Your task to perform on an android device: search for starred emails in the gmail app Image 0: 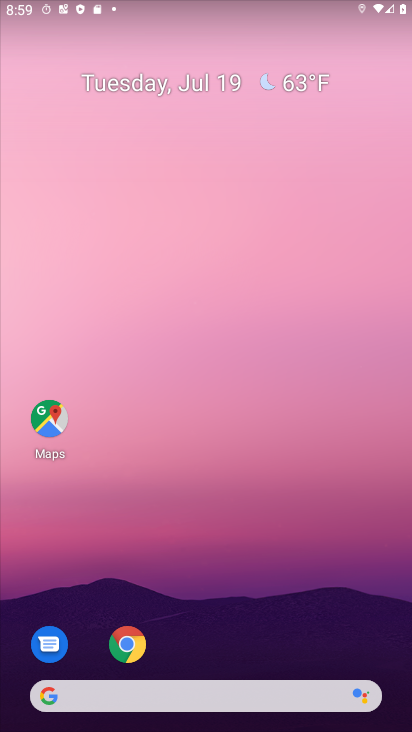
Step 0: drag from (245, 688) to (182, 198)
Your task to perform on an android device: search for starred emails in the gmail app Image 1: 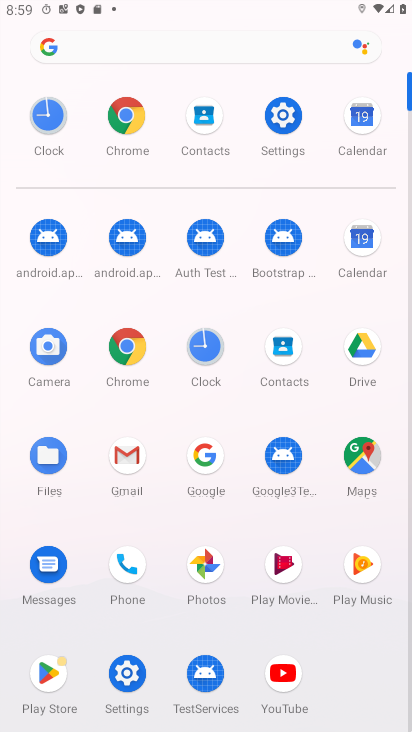
Step 1: click (122, 468)
Your task to perform on an android device: search for starred emails in the gmail app Image 2: 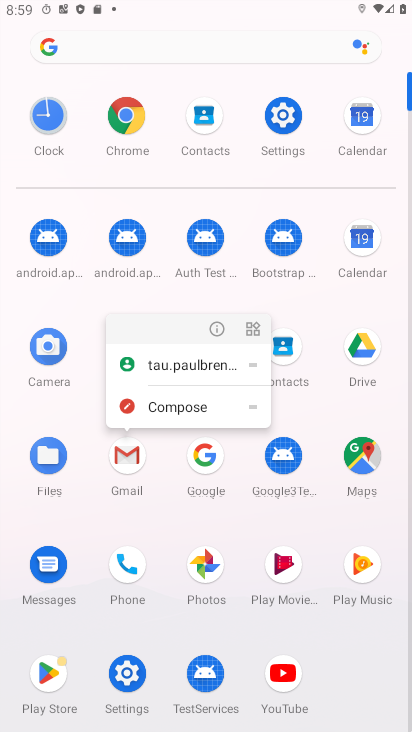
Step 2: click (129, 452)
Your task to perform on an android device: search for starred emails in the gmail app Image 3: 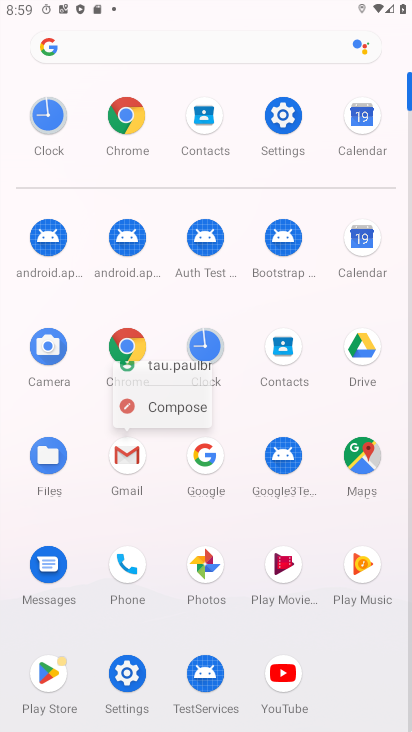
Step 3: click (129, 452)
Your task to perform on an android device: search for starred emails in the gmail app Image 4: 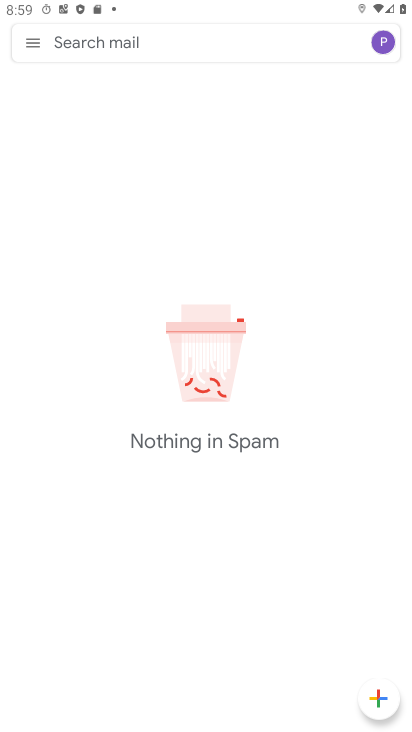
Step 4: click (133, 447)
Your task to perform on an android device: search for starred emails in the gmail app Image 5: 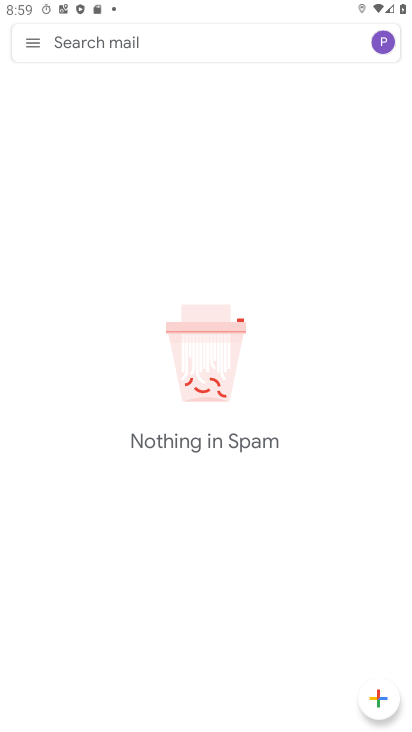
Step 5: click (33, 51)
Your task to perform on an android device: search for starred emails in the gmail app Image 6: 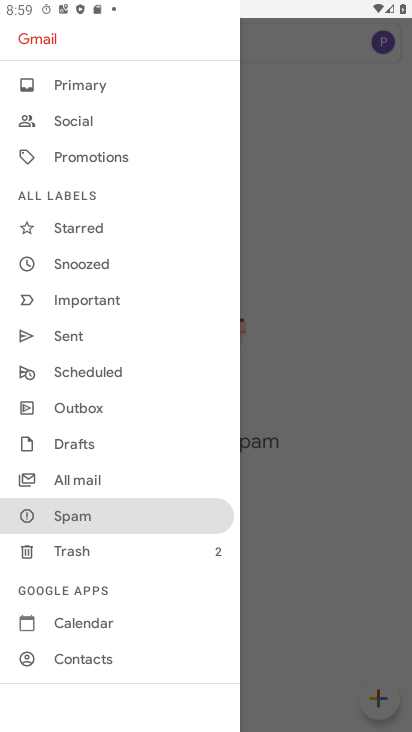
Step 6: click (76, 235)
Your task to perform on an android device: search for starred emails in the gmail app Image 7: 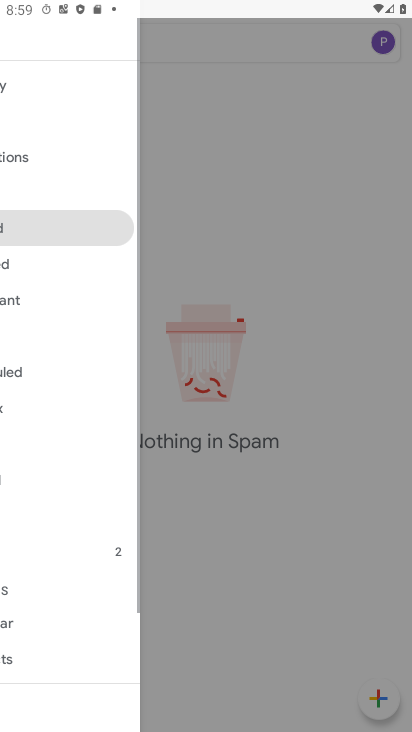
Step 7: click (73, 224)
Your task to perform on an android device: search for starred emails in the gmail app Image 8: 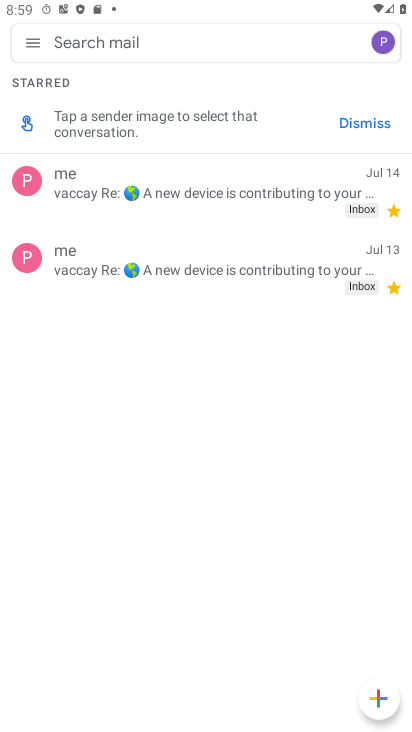
Step 8: task complete